Your task to perform on an android device: find snoozed emails in the gmail app Image 0: 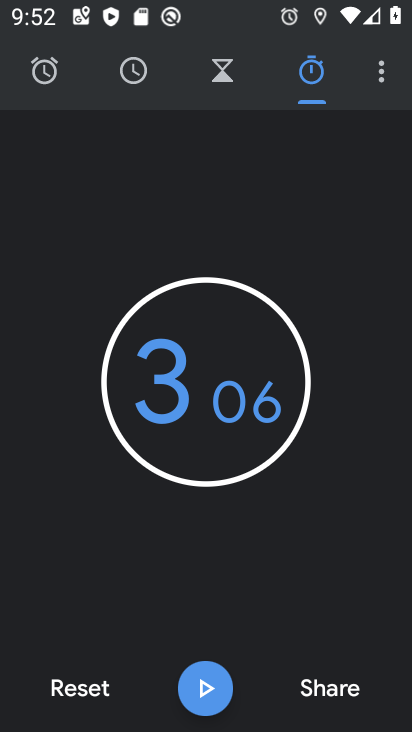
Step 0: press back button
Your task to perform on an android device: find snoozed emails in the gmail app Image 1: 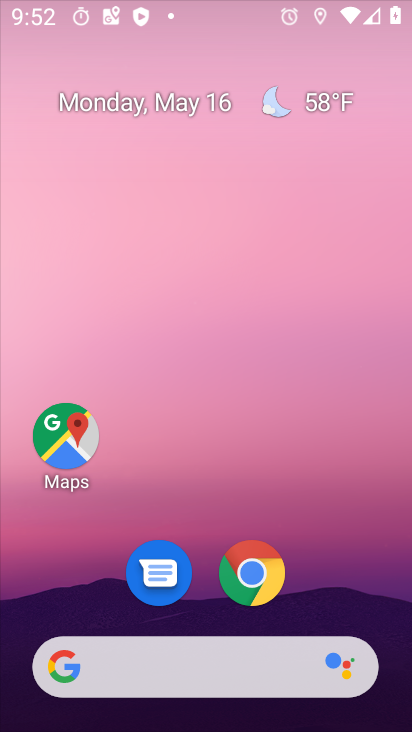
Step 1: drag from (320, 635) to (257, 47)
Your task to perform on an android device: find snoozed emails in the gmail app Image 2: 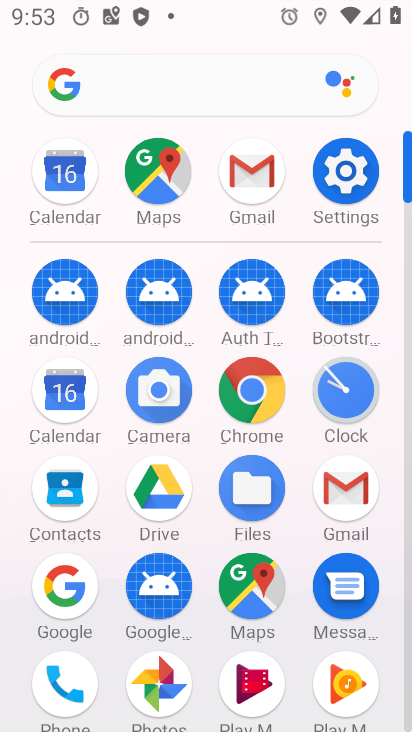
Step 2: click (338, 475)
Your task to perform on an android device: find snoozed emails in the gmail app Image 3: 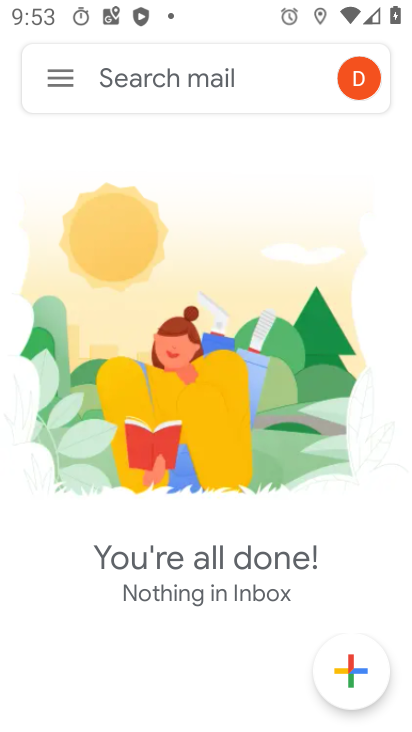
Step 3: click (46, 81)
Your task to perform on an android device: find snoozed emails in the gmail app Image 4: 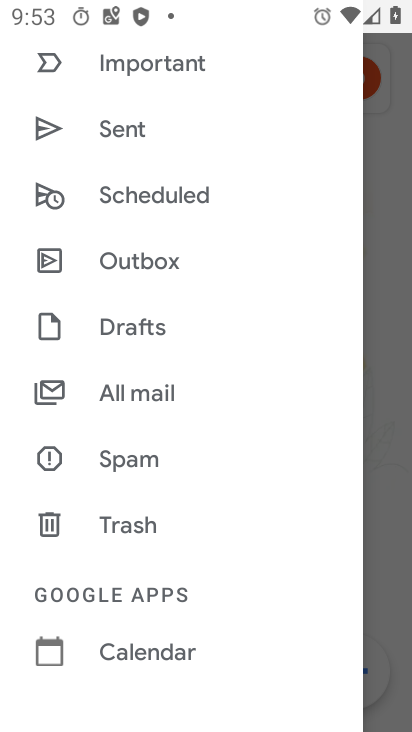
Step 4: drag from (134, 98) to (194, 365)
Your task to perform on an android device: find snoozed emails in the gmail app Image 5: 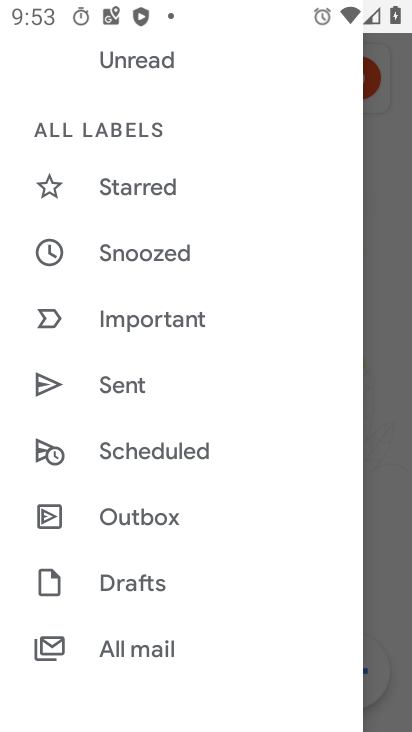
Step 5: drag from (180, 112) to (214, 625)
Your task to perform on an android device: find snoozed emails in the gmail app Image 6: 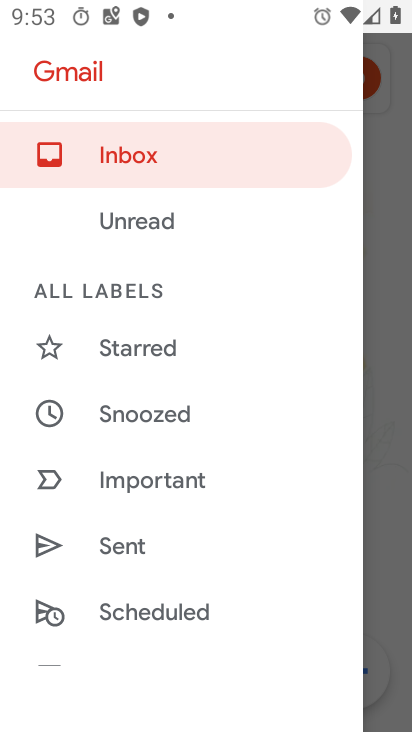
Step 6: click (132, 410)
Your task to perform on an android device: find snoozed emails in the gmail app Image 7: 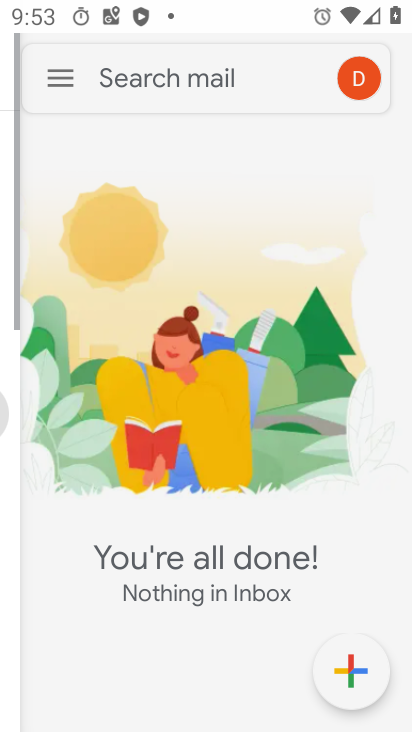
Step 7: click (139, 459)
Your task to perform on an android device: find snoozed emails in the gmail app Image 8: 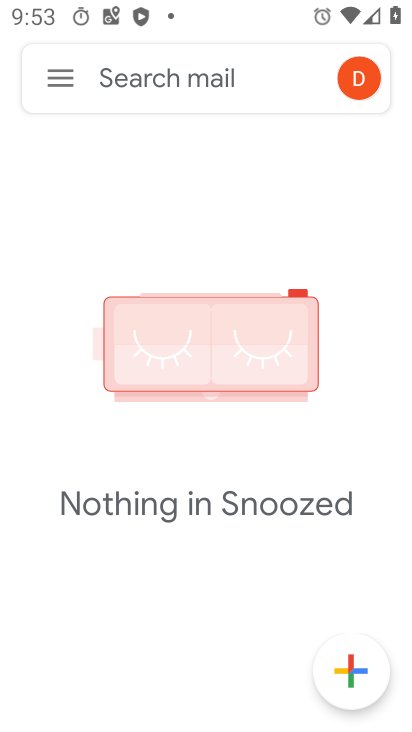
Step 8: task complete